Your task to perform on an android device: Go to privacy settings Image 0: 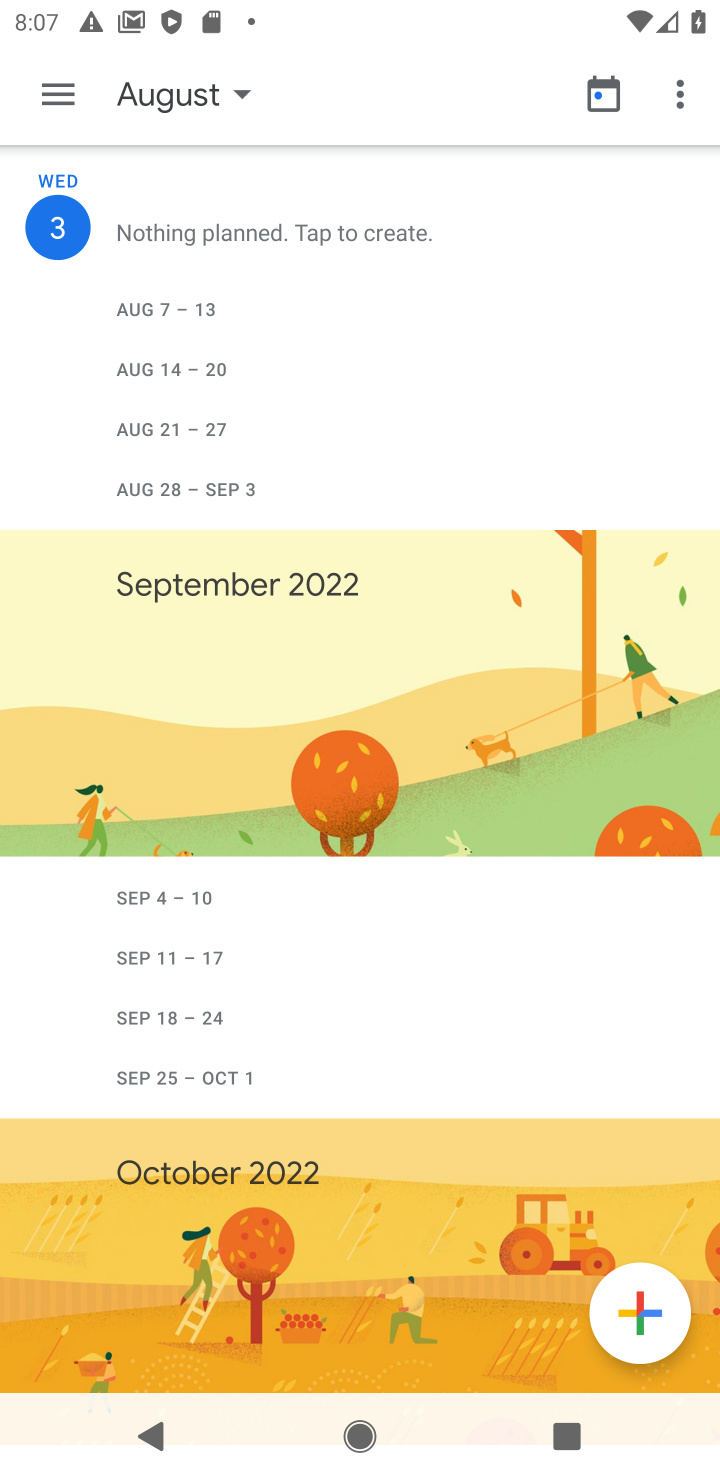
Step 0: drag from (480, 1254) to (440, 586)
Your task to perform on an android device: Go to privacy settings Image 1: 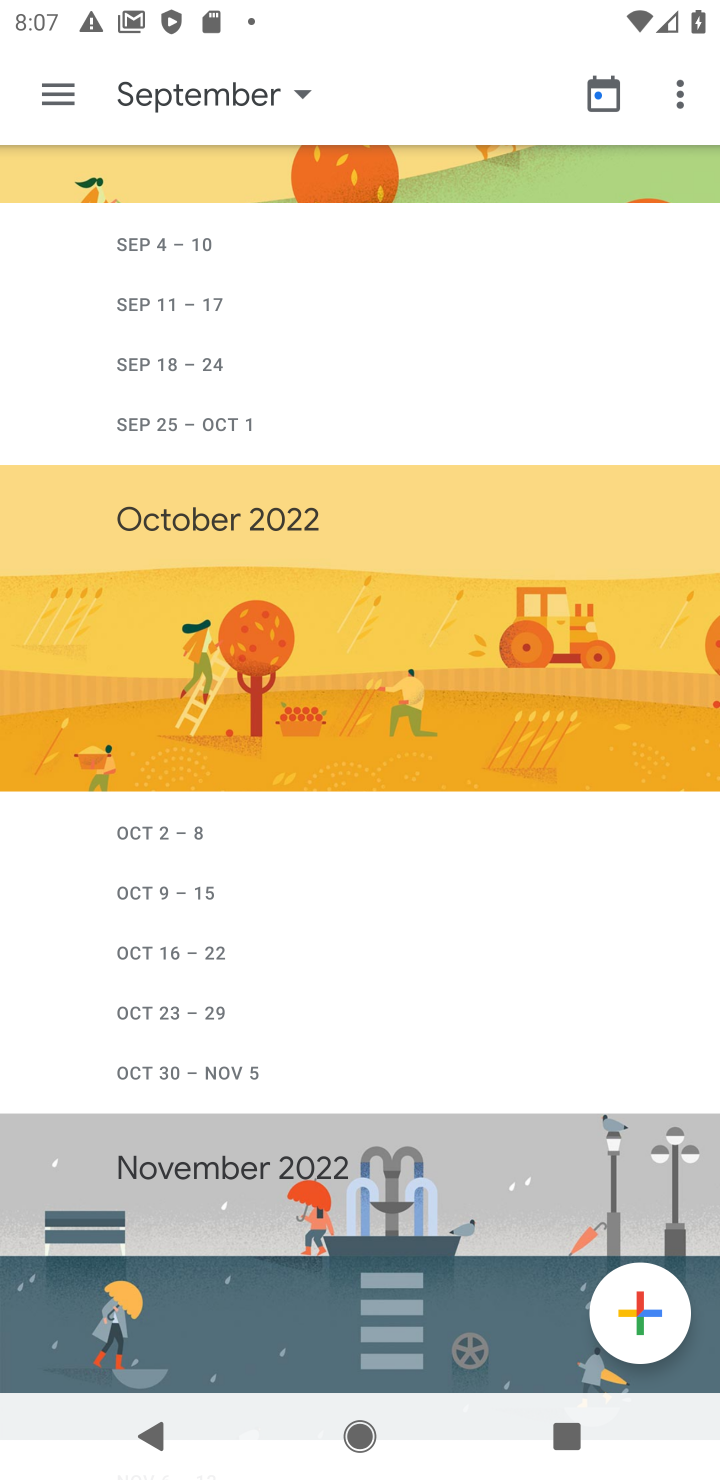
Step 1: press home button
Your task to perform on an android device: Go to privacy settings Image 2: 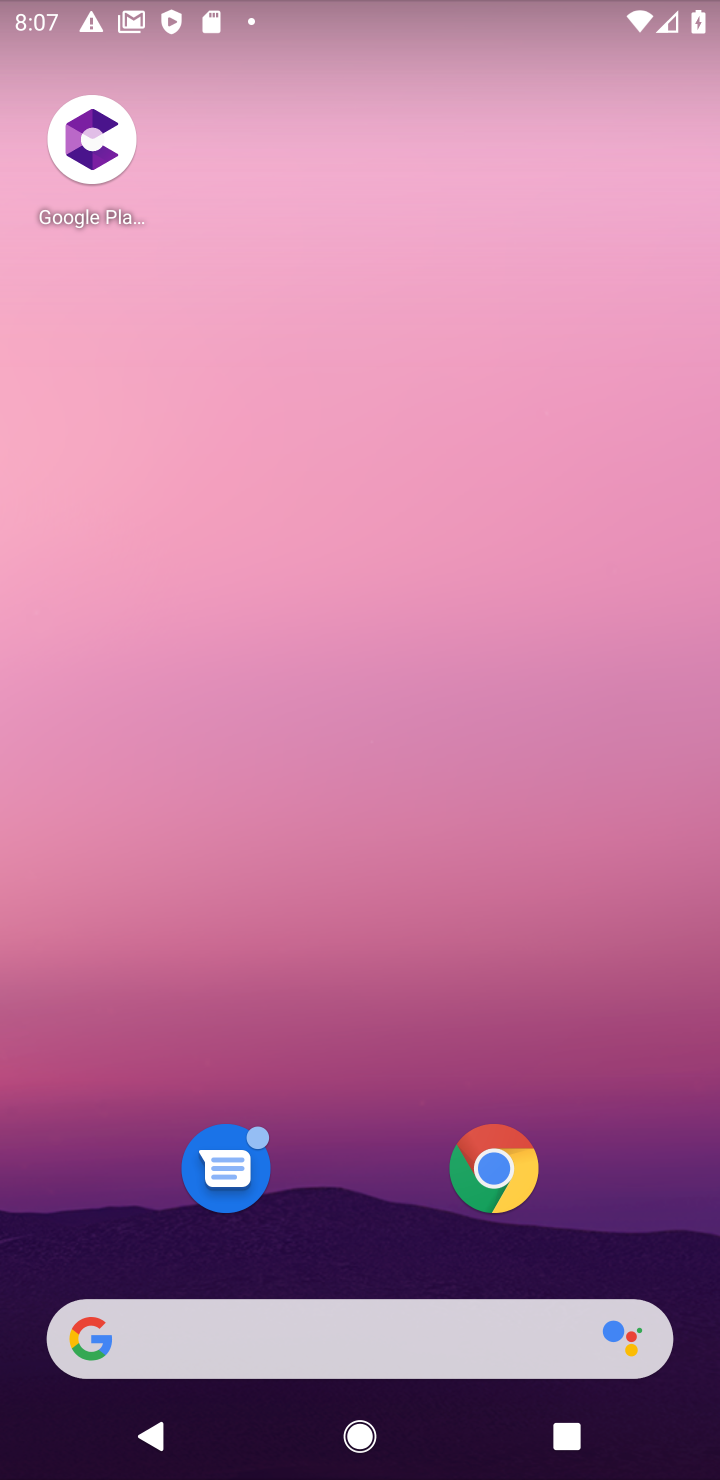
Step 2: drag from (417, 1288) to (663, 1275)
Your task to perform on an android device: Go to privacy settings Image 3: 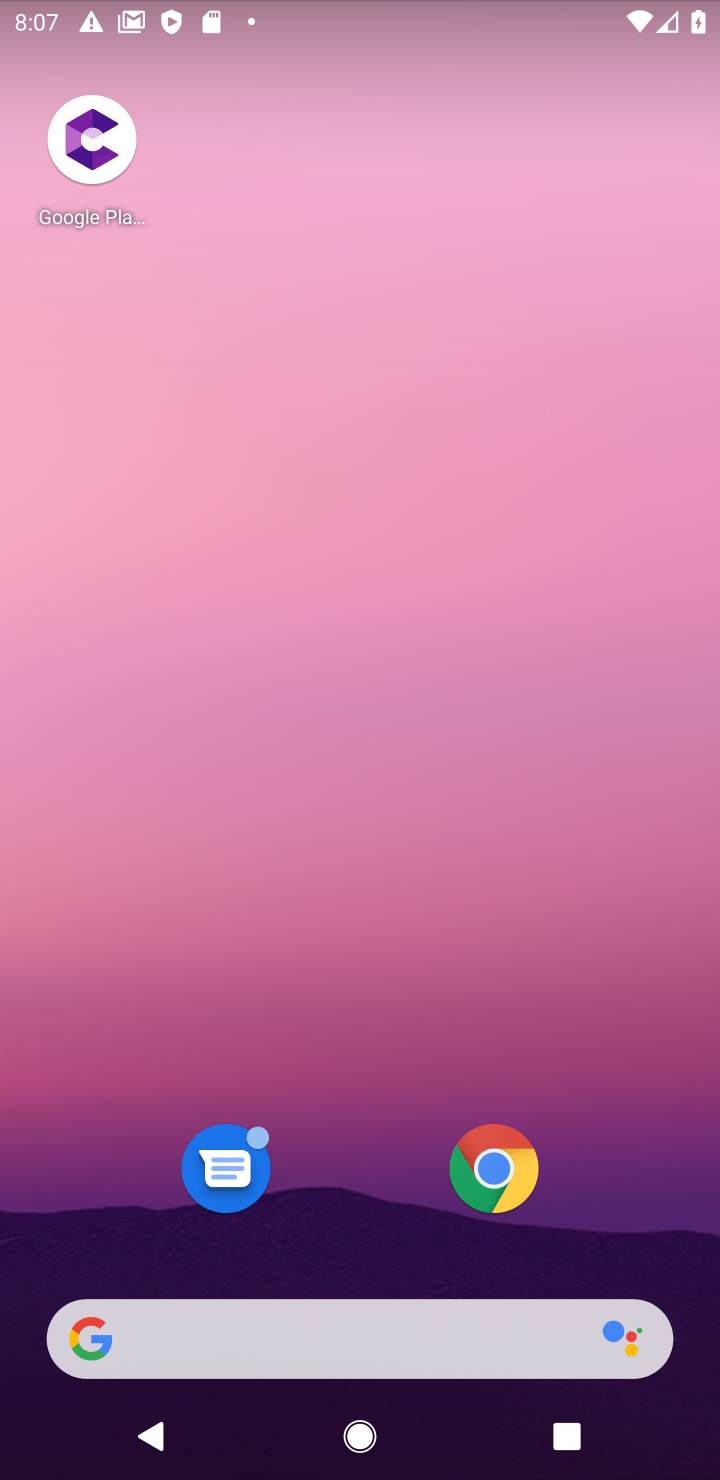
Step 3: drag from (384, 1238) to (602, 168)
Your task to perform on an android device: Go to privacy settings Image 4: 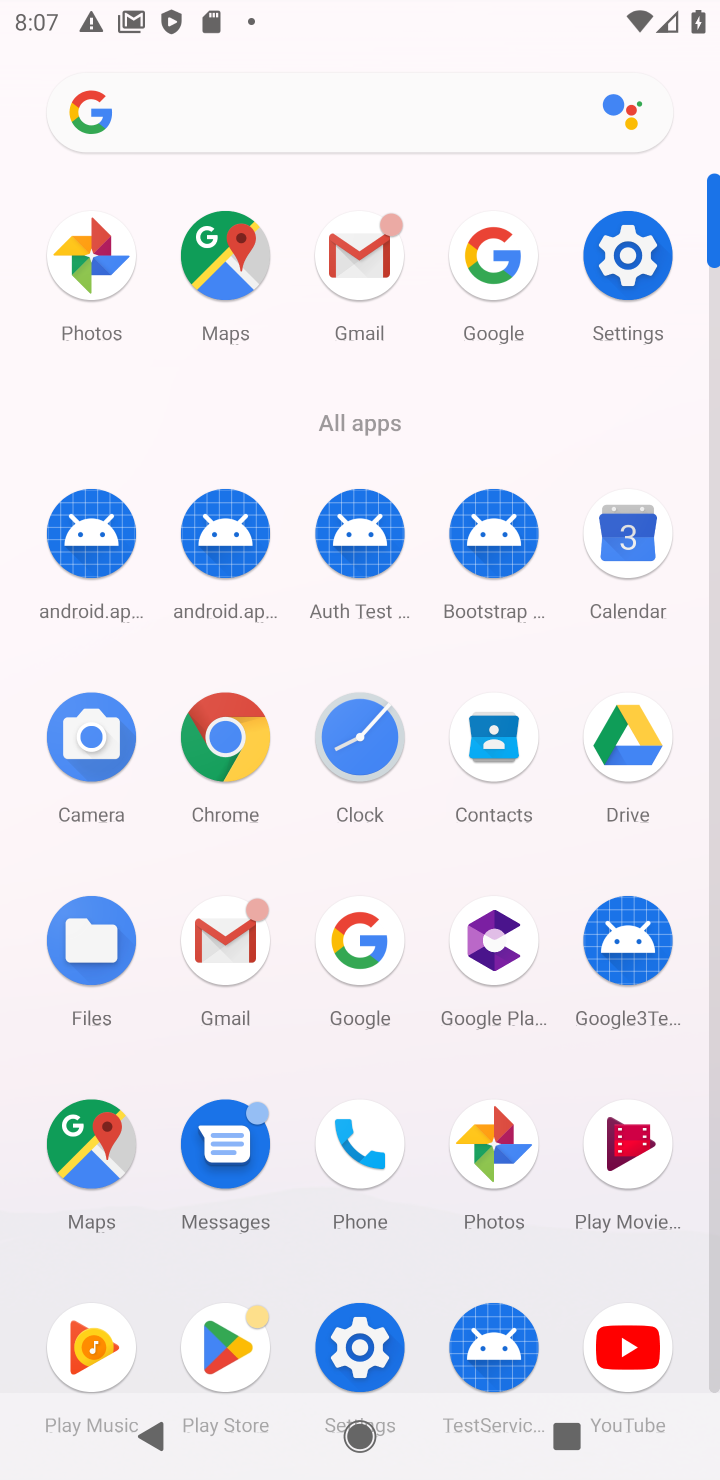
Step 4: click (359, 1351)
Your task to perform on an android device: Go to privacy settings Image 5: 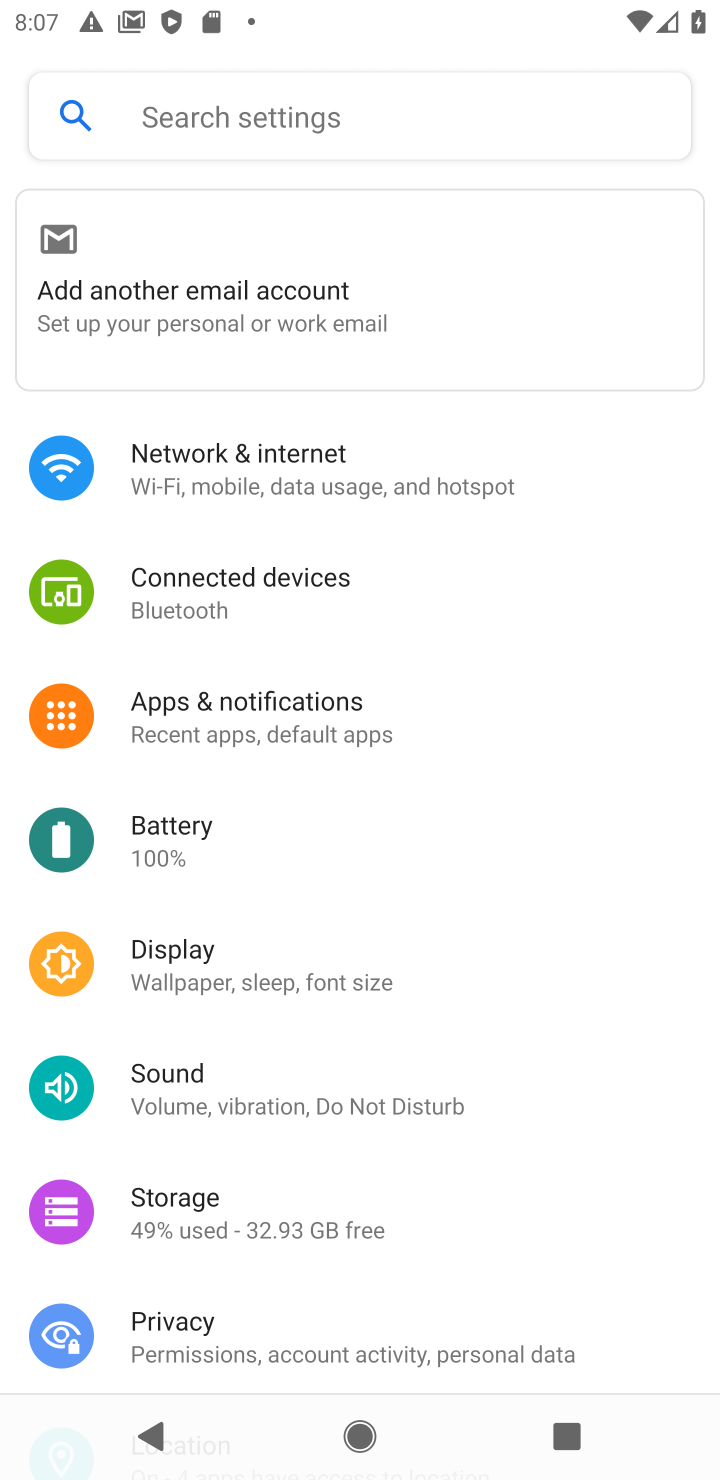
Step 5: click (224, 1304)
Your task to perform on an android device: Go to privacy settings Image 6: 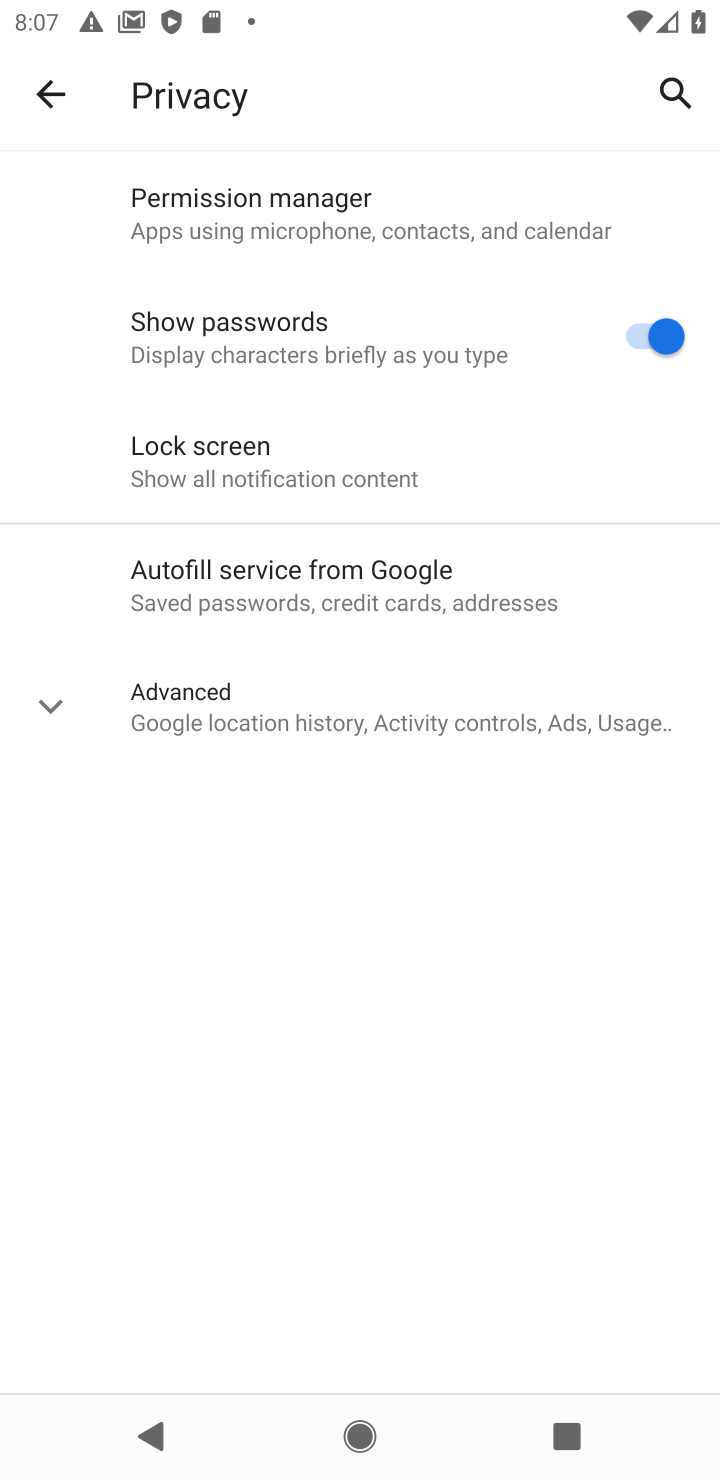
Step 6: task complete